Your task to perform on an android device: Open wifi settings Image 0: 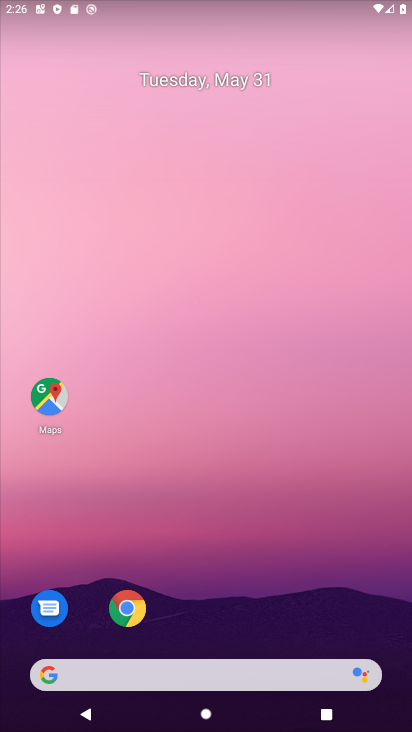
Step 0: drag from (221, 645) to (211, 2)
Your task to perform on an android device: Open wifi settings Image 1: 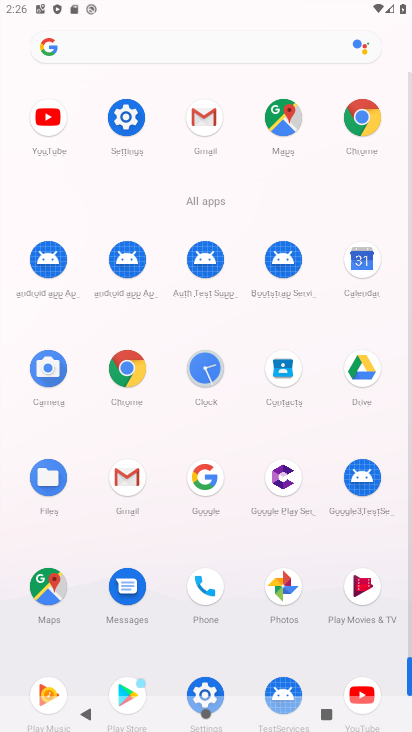
Step 1: click (125, 132)
Your task to perform on an android device: Open wifi settings Image 2: 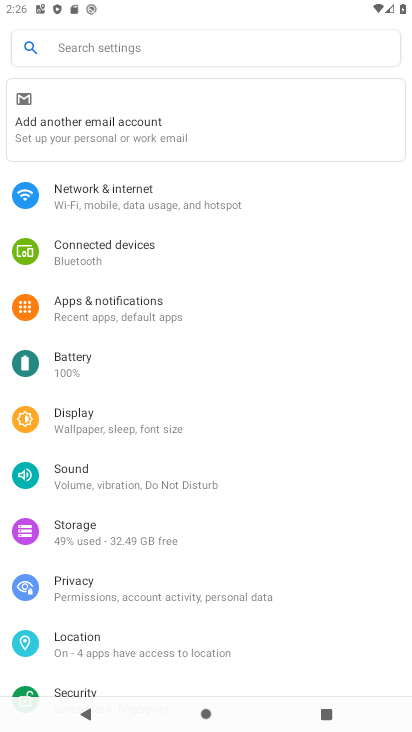
Step 2: click (161, 207)
Your task to perform on an android device: Open wifi settings Image 3: 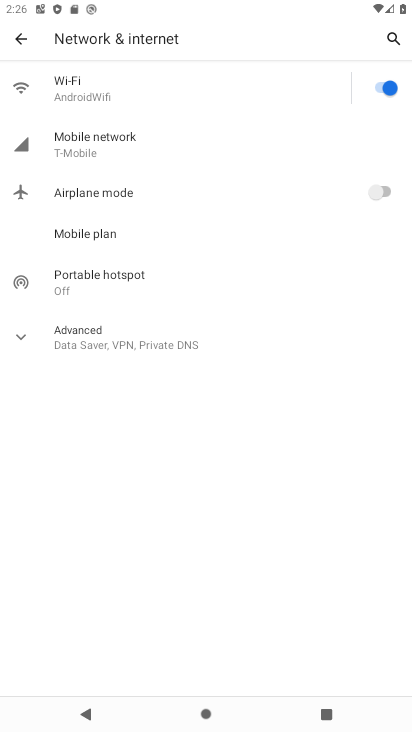
Step 3: click (117, 87)
Your task to perform on an android device: Open wifi settings Image 4: 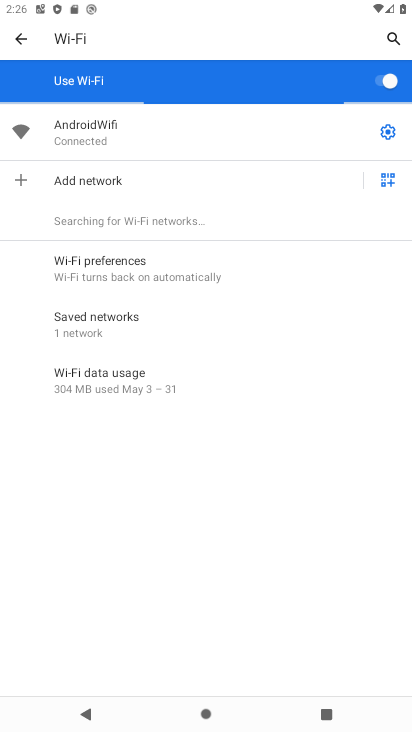
Step 4: task complete